Your task to perform on an android device: Open the calendar and show me this week's events Image 0: 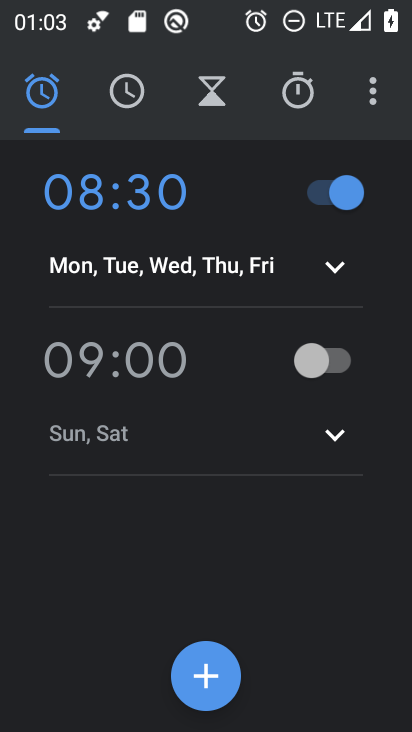
Step 0: press home button
Your task to perform on an android device: Open the calendar and show me this week's events Image 1: 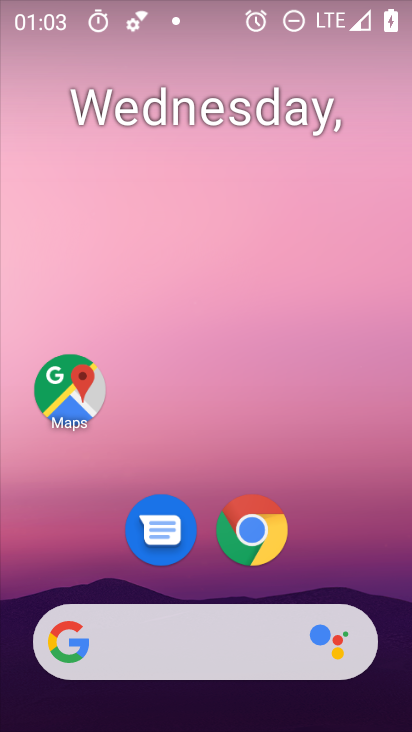
Step 1: drag from (169, 661) to (206, 162)
Your task to perform on an android device: Open the calendar and show me this week's events Image 2: 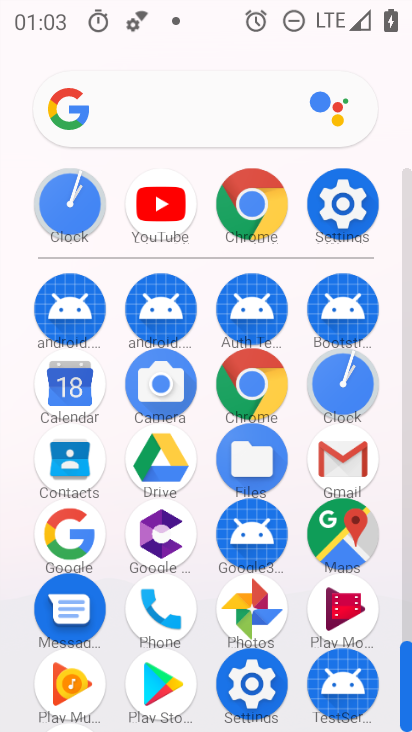
Step 2: click (73, 384)
Your task to perform on an android device: Open the calendar and show me this week's events Image 3: 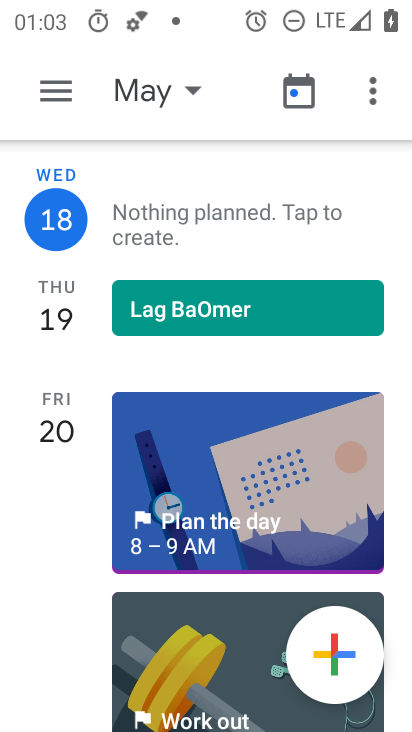
Step 3: click (190, 87)
Your task to perform on an android device: Open the calendar and show me this week's events Image 4: 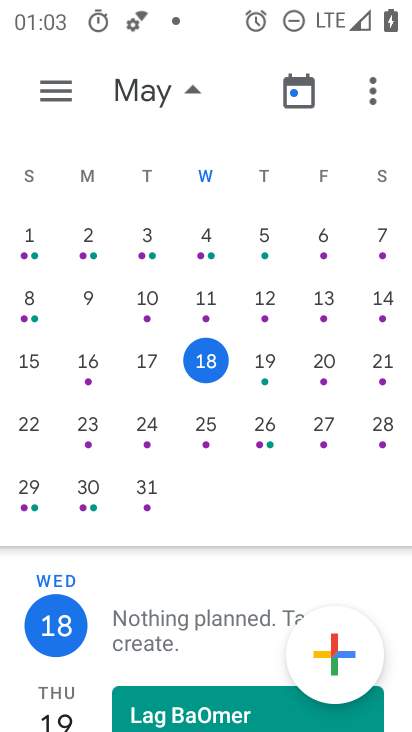
Step 4: click (59, 106)
Your task to perform on an android device: Open the calendar and show me this week's events Image 5: 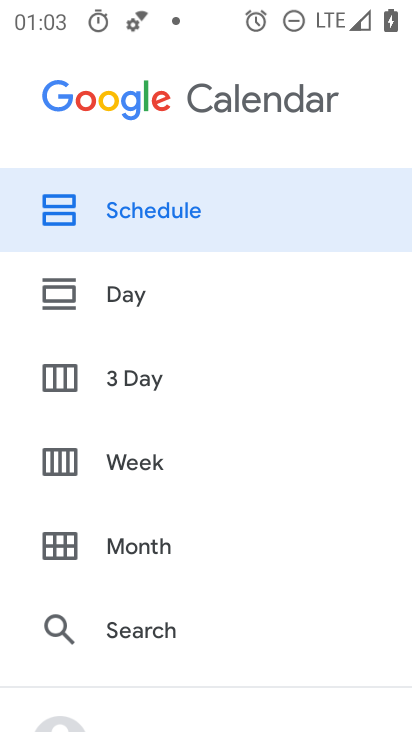
Step 5: click (137, 464)
Your task to perform on an android device: Open the calendar and show me this week's events Image 6: 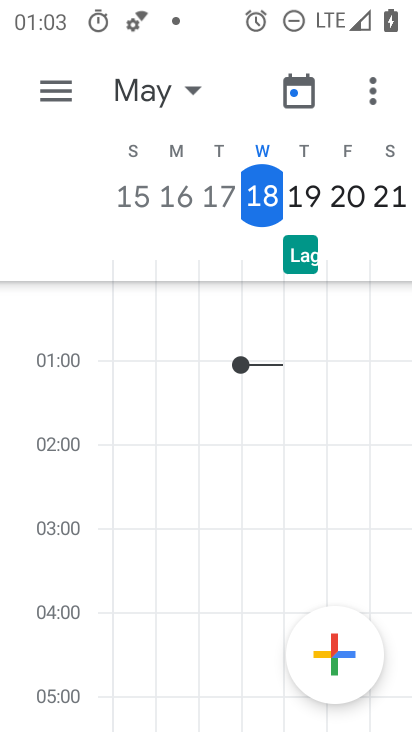
Step 6: task complete